Your task to perform on an android device: Open Maps and search for coffee Image 0: 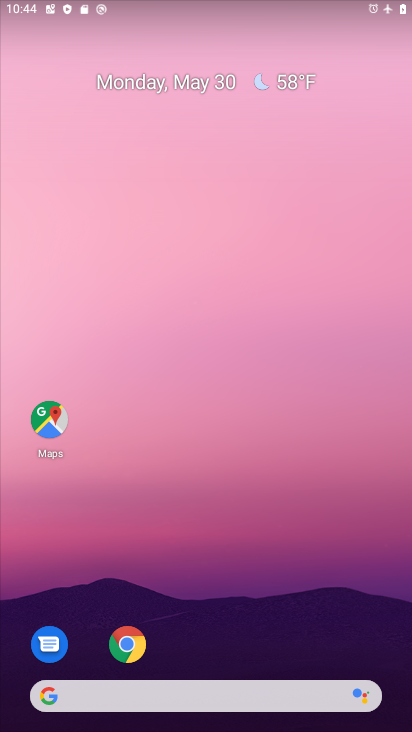
Step 0: click (50, 419)
Your task to perform on an android device: Open Maps and search for coffee Image 1: 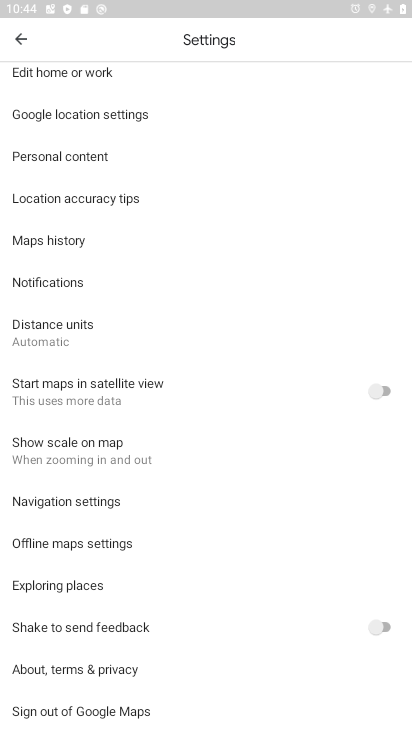
Step 1: press back button
Your task to perform on an android device: Open Maps and search for coffee Image 2: 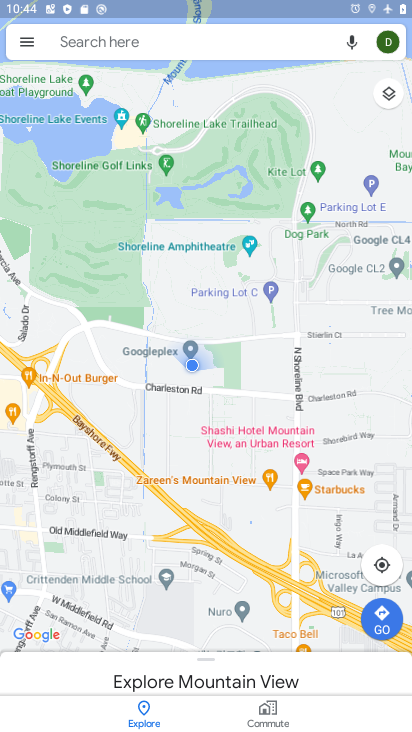
Step 2: click (124, 43)
Your task to perform on an android device: Open Maps and search for coffee Image 3: 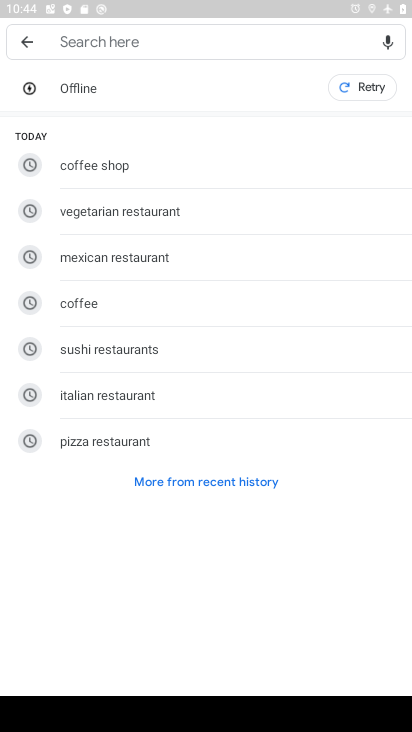
Step 3: type ""
Your task to perform on an android device: Open Maps and search for coffee Image 4: 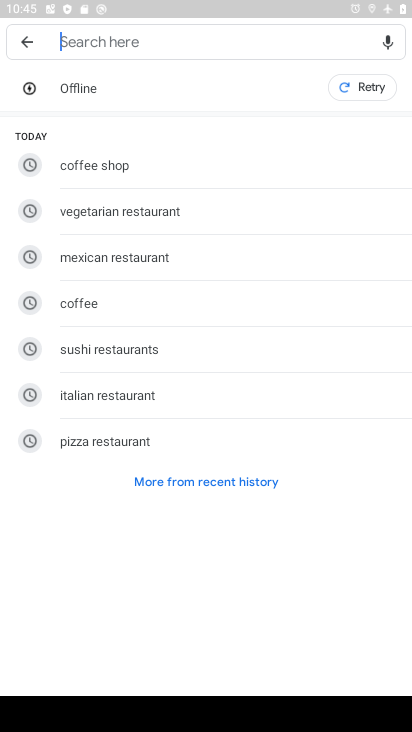
Step 4: type "coffee"
Your task to perform on an android device: Open Maps and search for coffee Image 5: 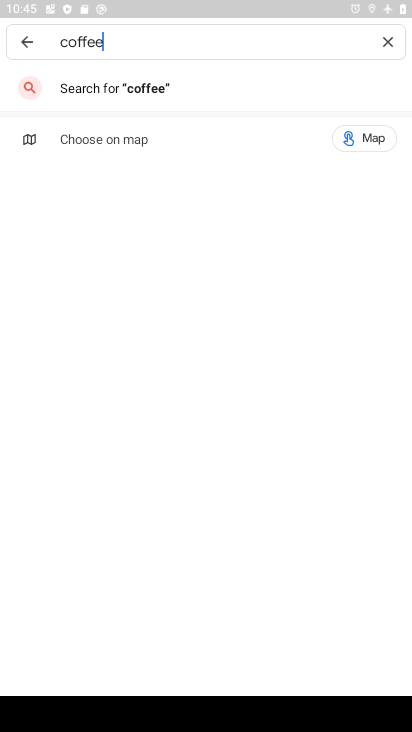
Step 5: click (148, 84)
Your task to perform on an android device: Open Maps and search for coffee Image 6: 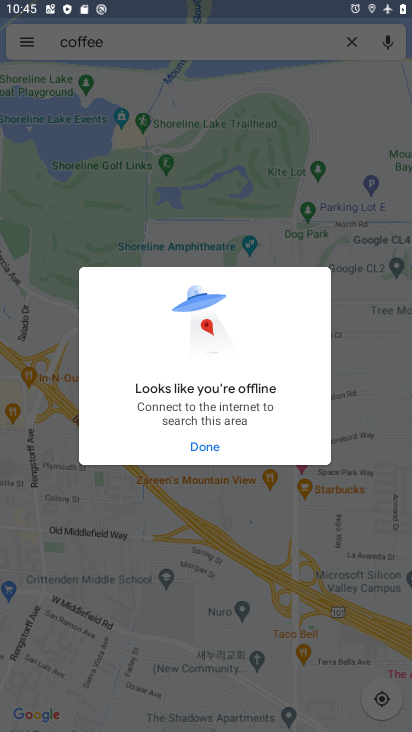
Step 6: task complete